Your task to perform on an android device: Go to sound settings Image 0: 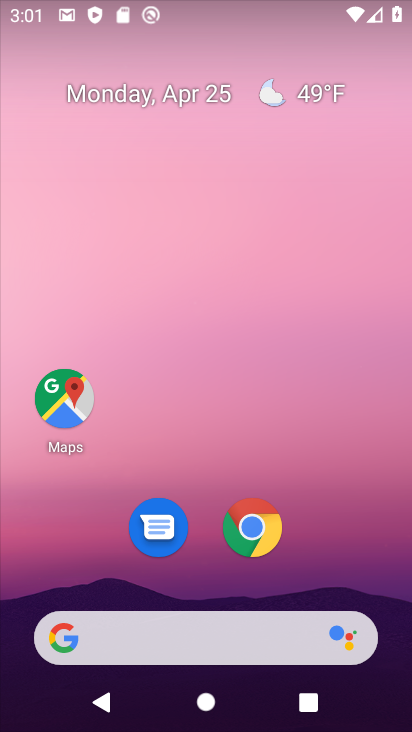
Step 0: drag from (203, 564) to (181, 48)
Your task to perform on an android device: Go to sound settings Image 1: 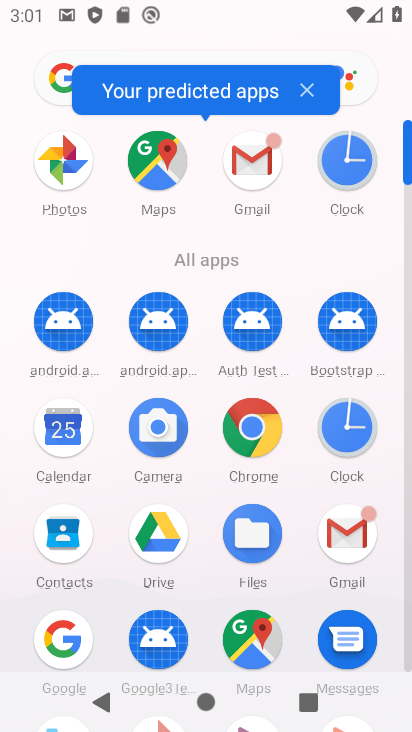
Step 1: drag from (205, 658) to (192, 241)
Your task to perform on an android device: Go to sound settings Image 2: 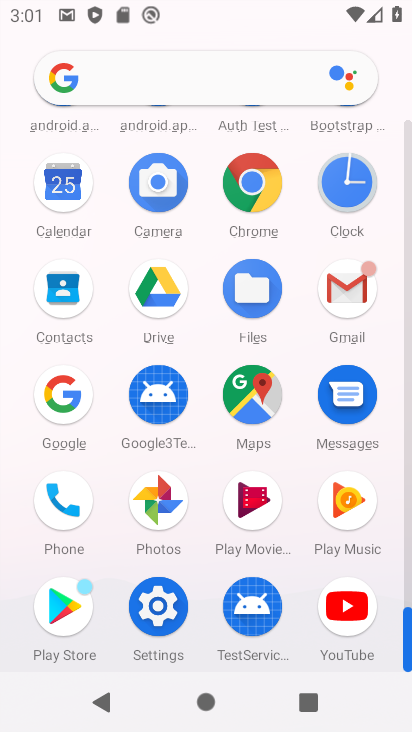
Step 2: click (159, 616)
Your task to perform on an android device: Go to sound settings Image 3: 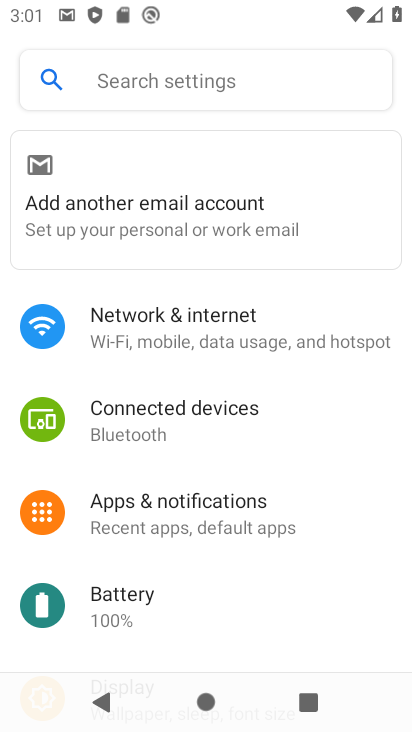
Step 3: drag from (100, 621) to (113, 73)
Your task to perform on an android device: Go to sound settings Image 4: 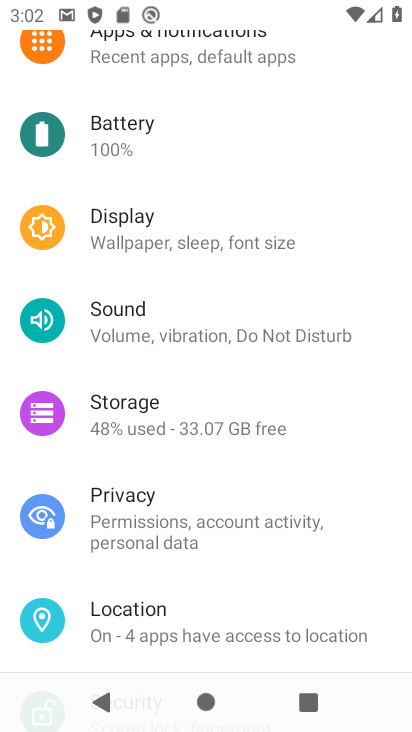
Step 4: drag from (130, 592) to (182, 267)
Your task to perform on an android device: Go to sound settings Image 5: 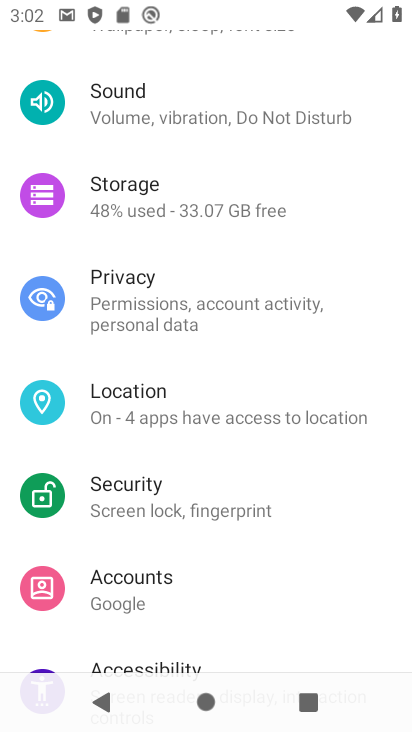
Step 5: click (145, 138)
Your task to perform on an android device: Go to sound settings Image 6: 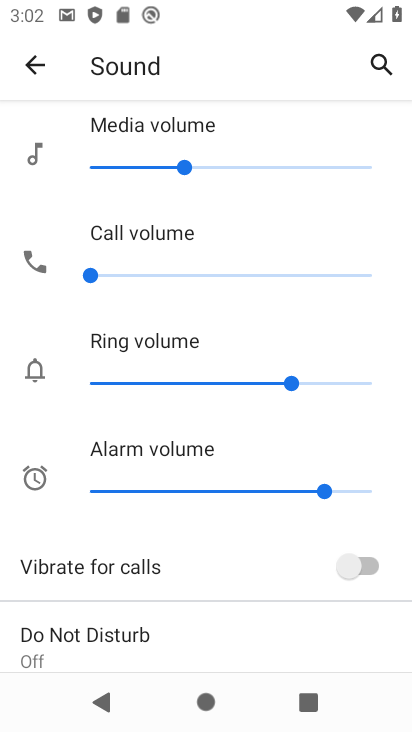
Step 6: task complete